Your task to perform on an android device: empty trash in the gmail app Image 0: 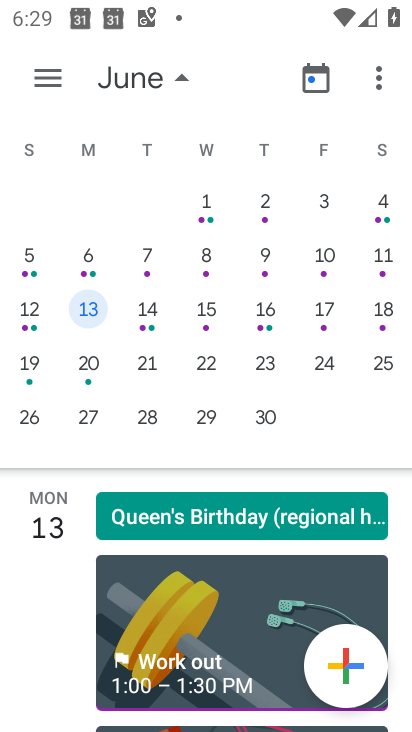
Step 0: press home button
Your task to perform on an android device: empty trash in the gmail app Image 1: 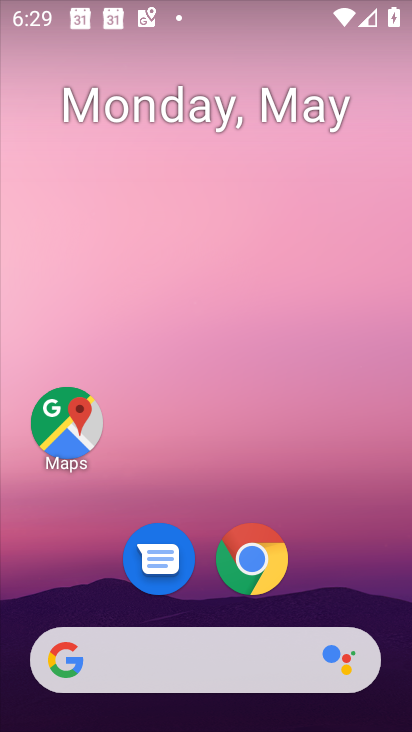
Step 1: drag from (384, 643) to (215, 114)
Your task to perform on an android device: empty trash in the gmail app Image 2: 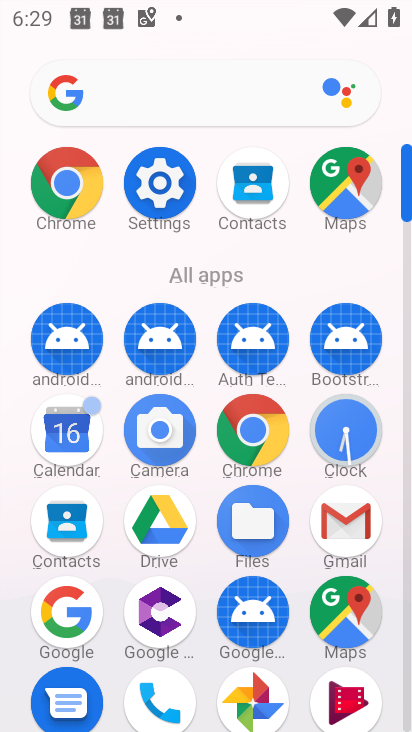
Step 2: click (352, 532)
Your task to perform on an android device: empty trash in the gmail app Image 3: 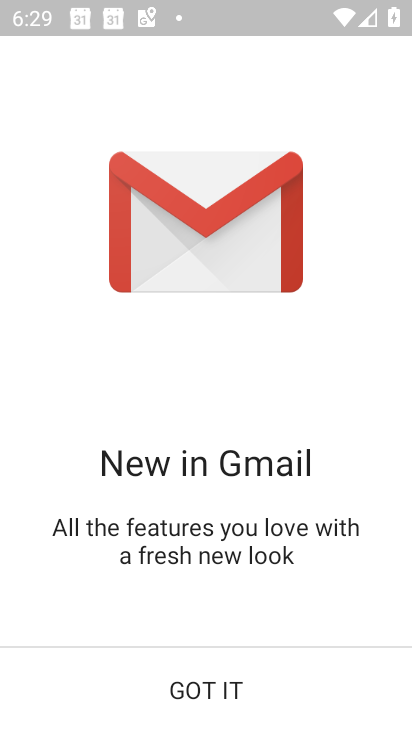
Step 3: click (254, 669)
Your task to perform on an android device: empty trash in the gmail app Image 4: 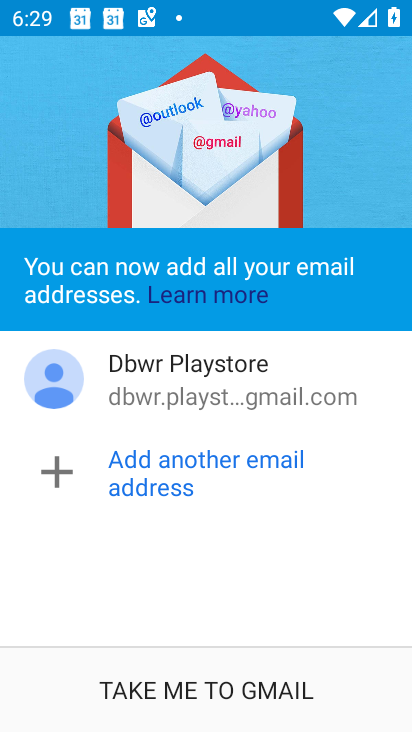
Step 4: click (254, 669)
Your task to perform on an android device: empty trash in the gmail app Image 5: 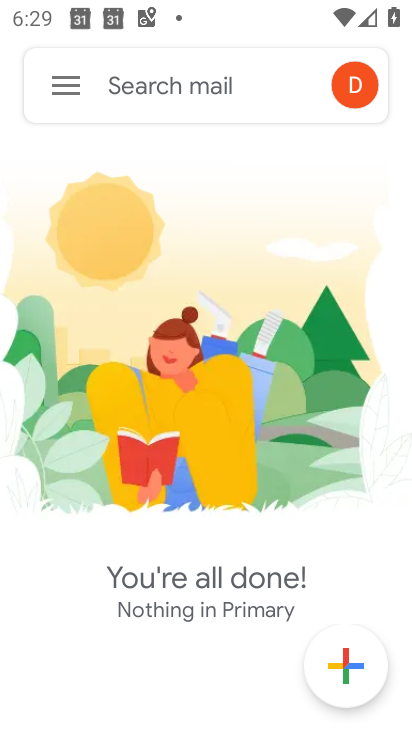
Step 5: click (64, 100)
Your task to perform on an android device: empty trash in the gmail app Image 6: 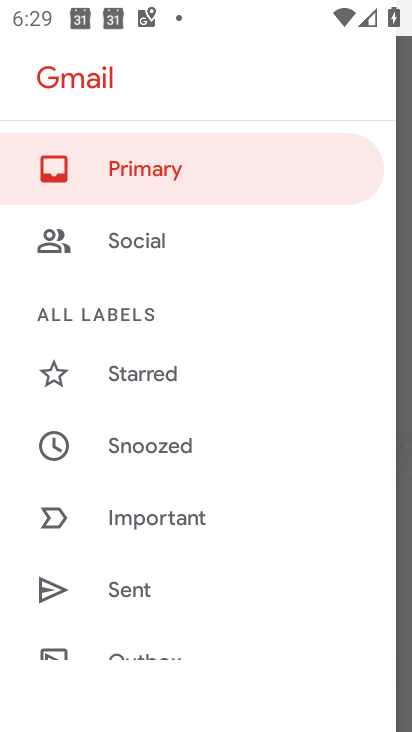
Step 6: drag from (102, 606) to (113, 129)
Your task to perform on an android device: empty trash in the gmail app Image 7: 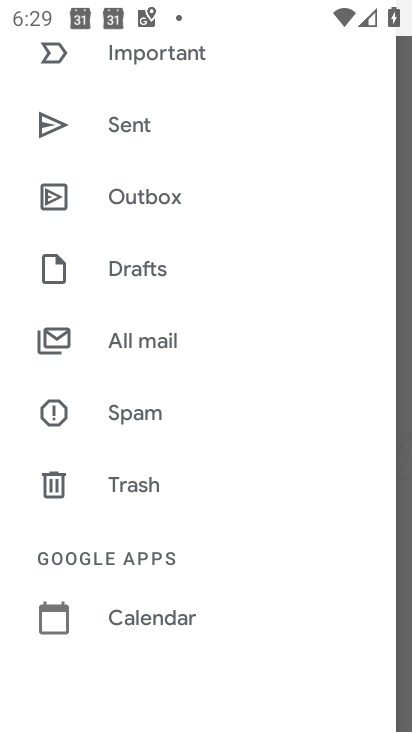
Step 7: click (145, 499)
Your task to perform on an android device: empty trash in the gmail app Image 8: 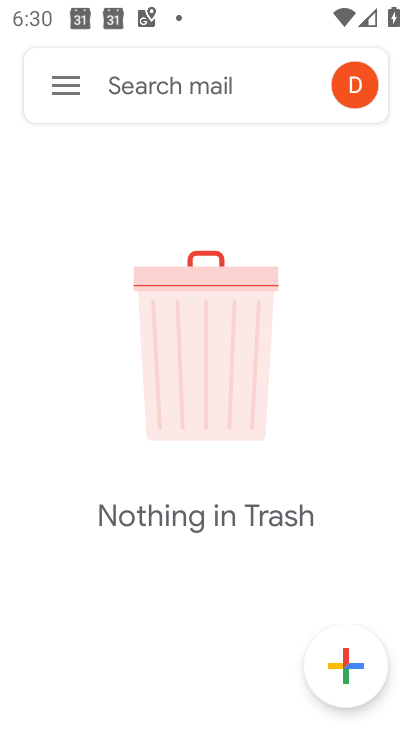
Step 8: task complete